Your task to perform on an android device: Show me the alarms in the clock app Image 0: 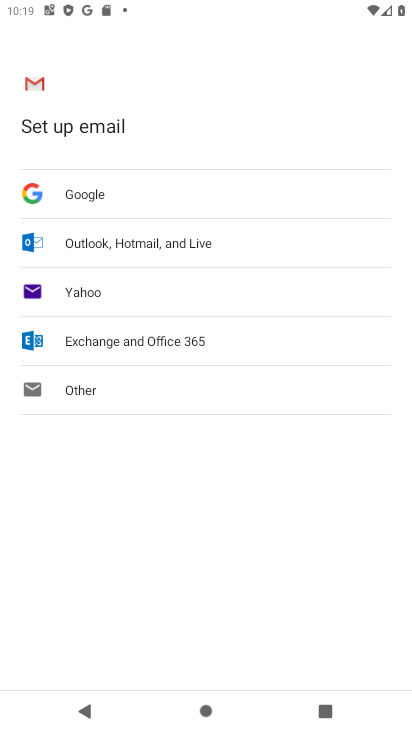
Step 0: press home button
Your task to perform on an android device: Show me the alarms in the clock app Image 1: 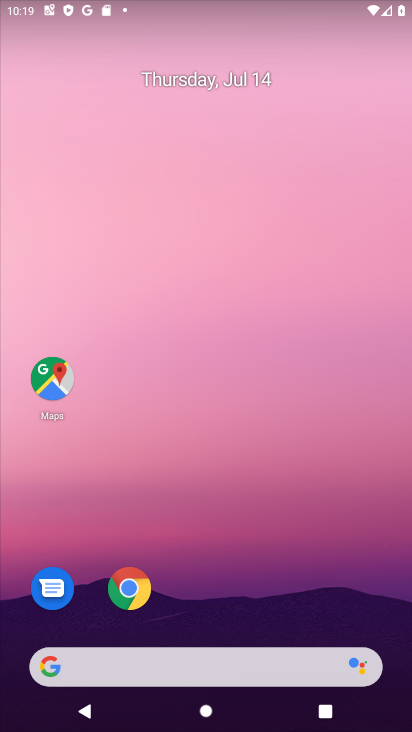
Step 1: drag from (157, 669) to (329, 65)
Your task to perform on an android device: Show me the alarms in the clock app Image 2: 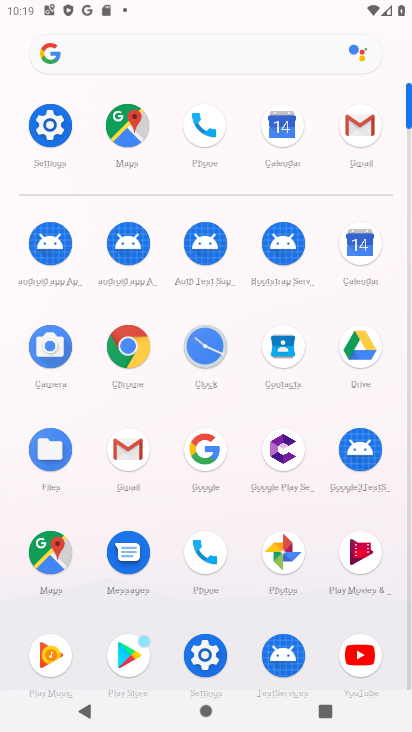
Step 2: click (208, 345)
Your task to perform on an android device: Show me the alarms in the clock app Image 3: 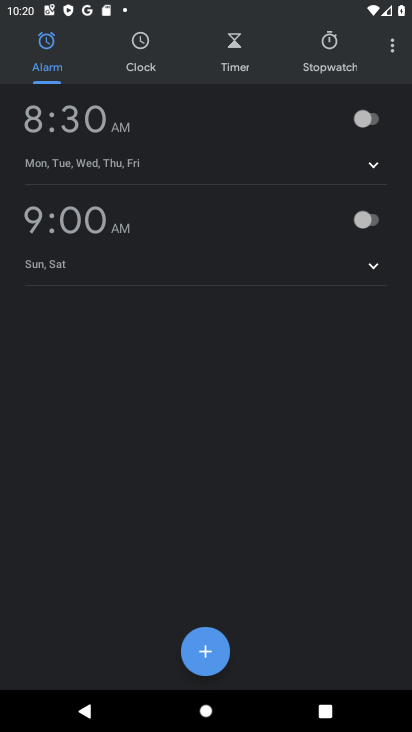
Step 3: task complete